Your task to perform on an android device: When is my next meeting? Image 0: 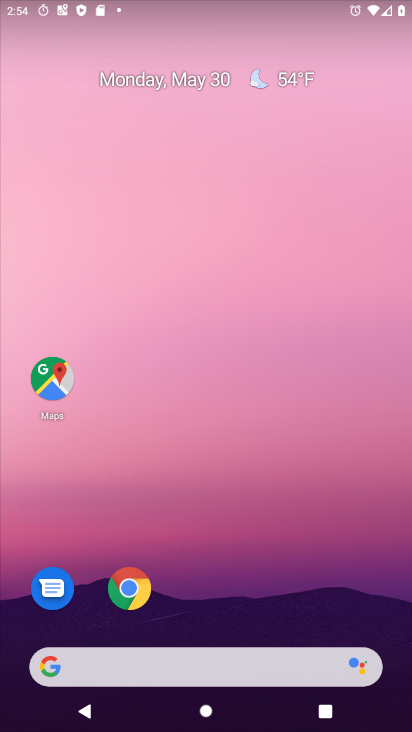
Step 0: drag from (208, 614) to (250, 34)
Your task to perform on an android device: When is my next meeting? Image 1: 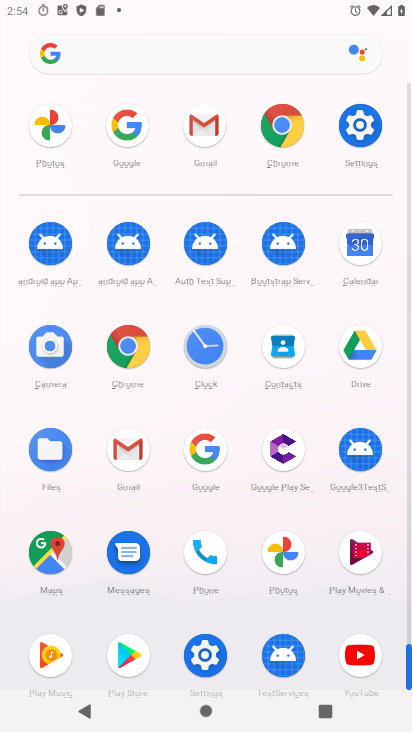
Step 1: click (355, 246)
Your task to perform on an android device: When is my next meeting? Image 2: 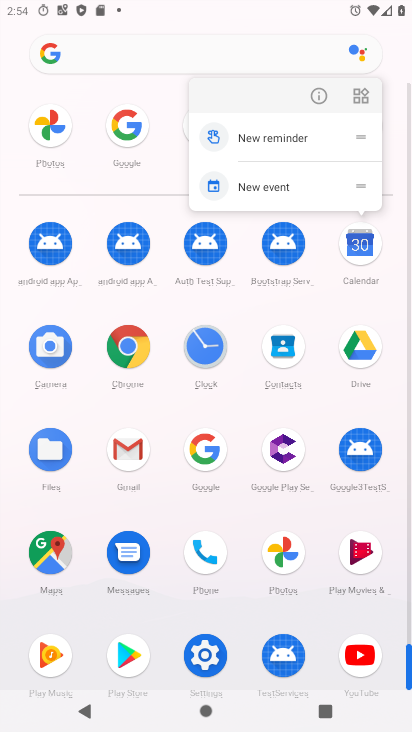
Step 2: click (355, 246)
Your task to perform on an android device: When is my next meeting? Image 3: 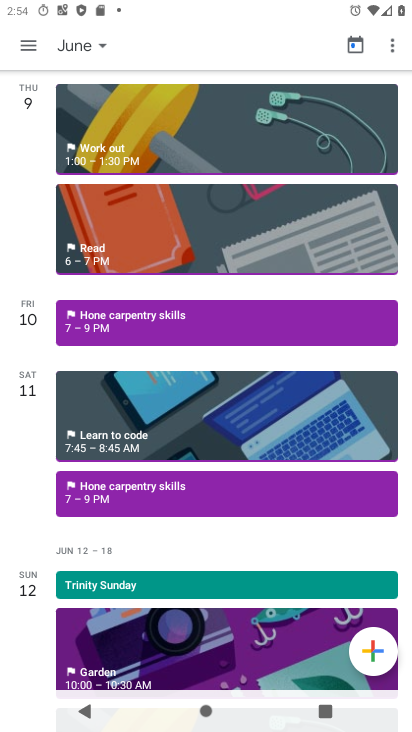
Step 3: click (89, 54)
Your task to perform on an android device: When is my next meeting? Image 4: 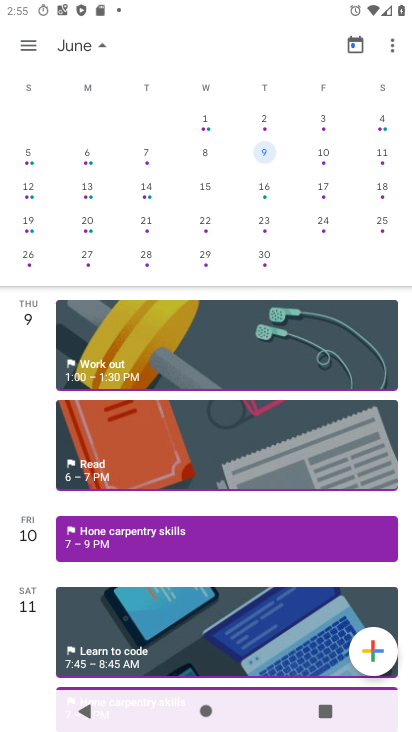
Step 4: drag from (45, 208) to (404, 183)
Your task to perform on an android device: When is my next meeting? Image 5: 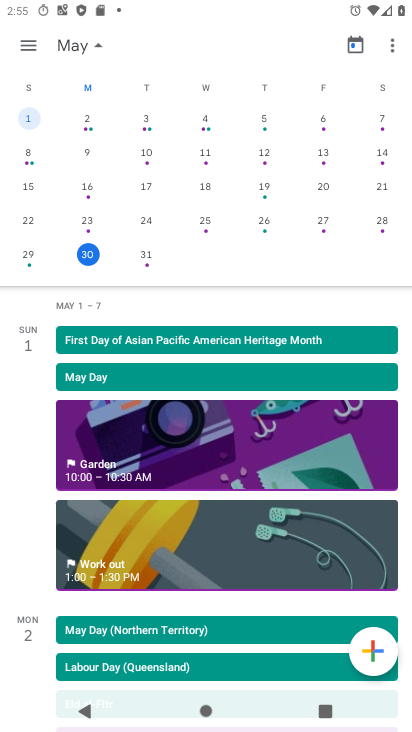
Step 5: click (142, 254)
Your task to perform on an android device: When is my next meeting? Image 6: 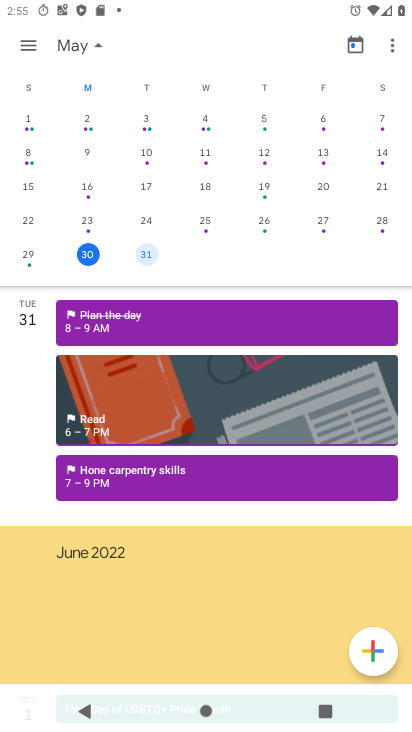
Step 6: task complete